Your task to perform on an android device: change alarm snooze length Image 0: 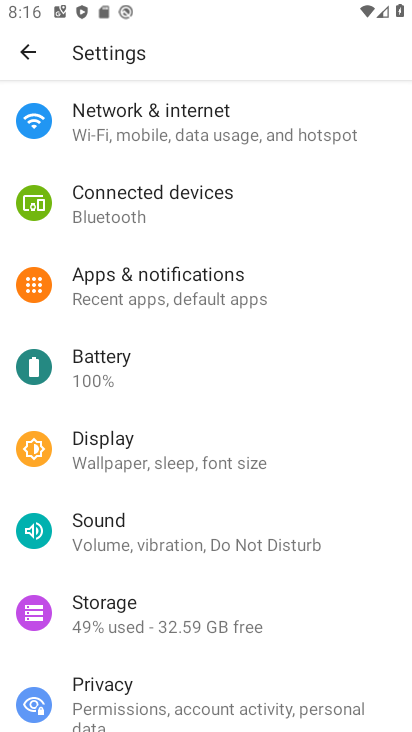
Step 0: press home button
Your task to perform on an android device: change alarm snooze length Image 1: 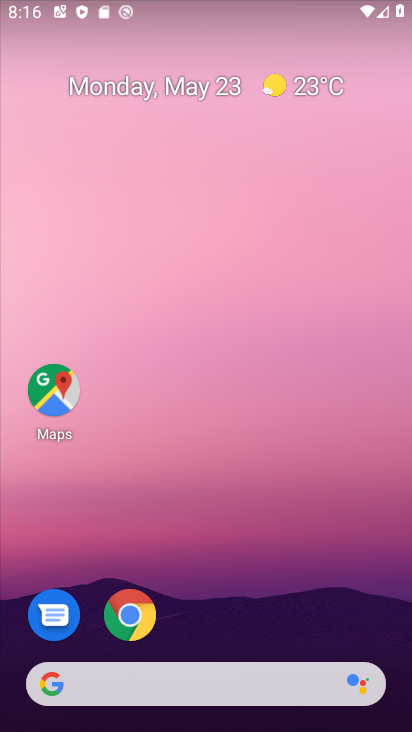
Step 1: drag from (240, 586) to (184, 113)
Your task to perform on an android device: change alarm snooze length Image 2: 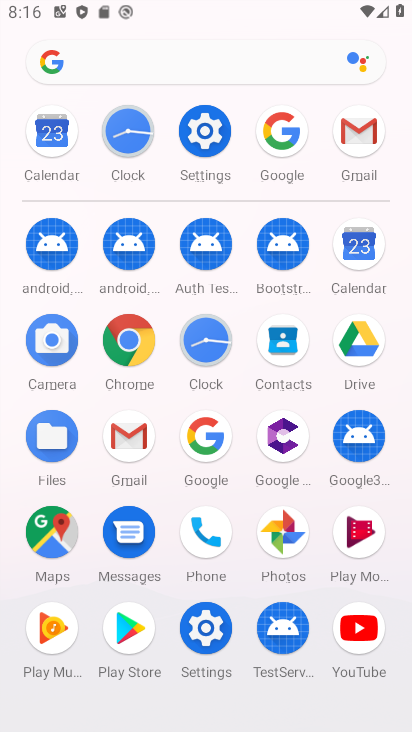
Step 2: click (206, 339)
Your task to perform on an android device: change alarm snooze length Image 3: 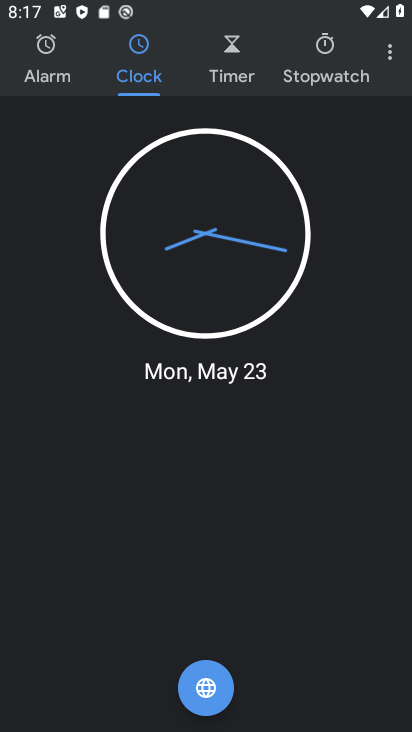
Step 3: click (392, 55)
Your task to perform on an android device: change alarm snooze length Image 4: 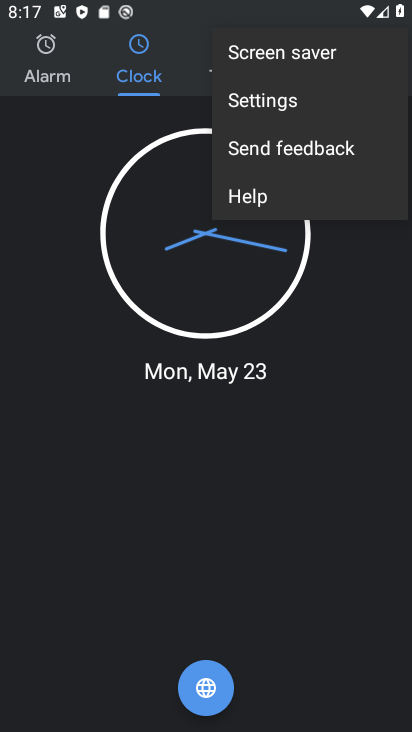
Step 4: click (283, 101)
Your task to perform on an android device: change alarm snooze length Image 5: 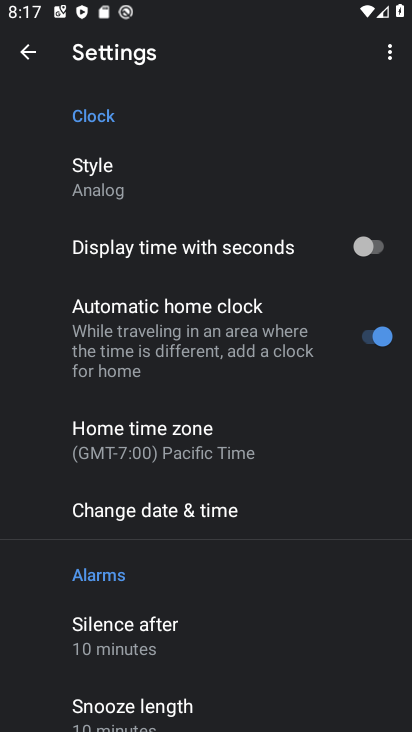
Step 5: drag from (184, 665) to (209, 490)
Your task to perform on an android device: change alarm snooze length Image 6: 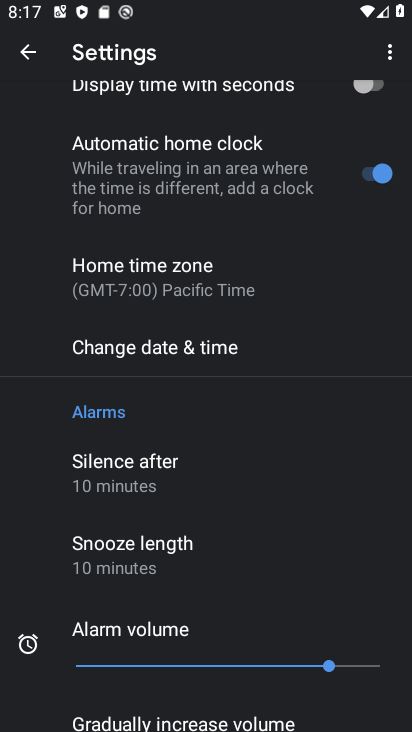
Step 6: click (158, 563)
Your task to perform on an android device: change alarm snooze length Image 7: 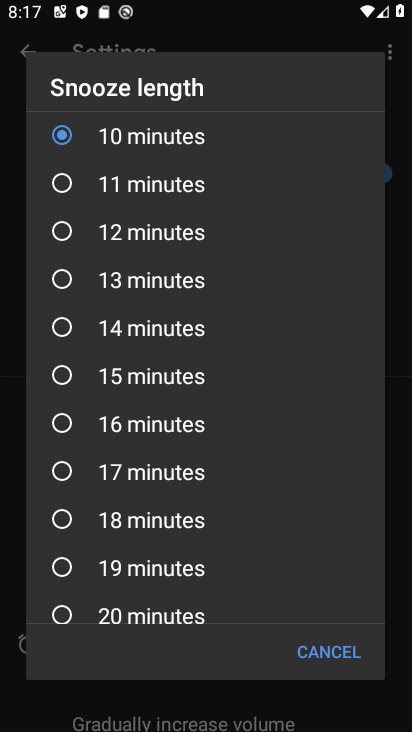
Step 7: click (57, 330)
Your task to perform on an android device: change alarm snooze length Image 8: 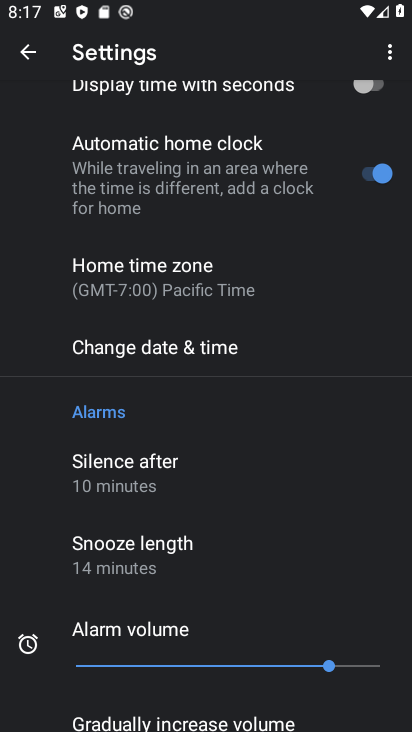
Step 8: task complete